Your task to perform on an android device: Go to Amazon Image 0: 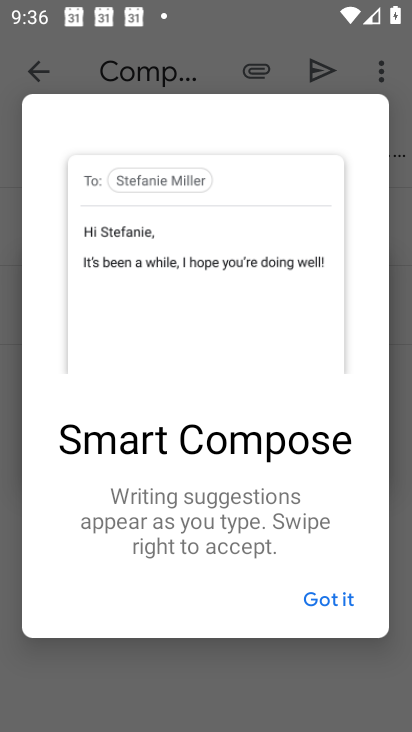
Step 0: press home button
Your task to perform on an android device: Go to Amazon Image 1: 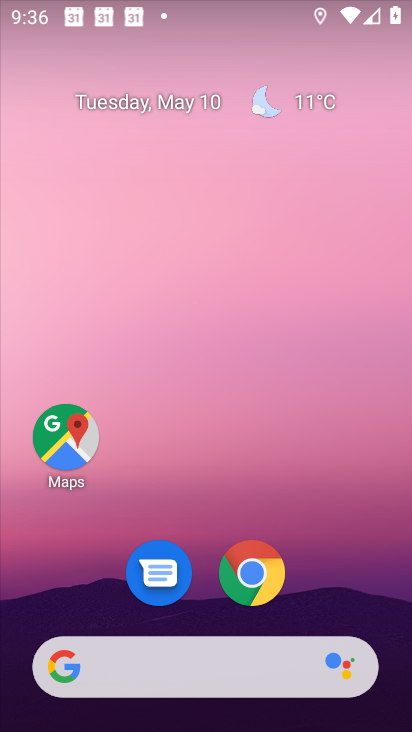
Step 1: click (260, 588)
Your task to perform on an android device: Go to Amazon Image 2: 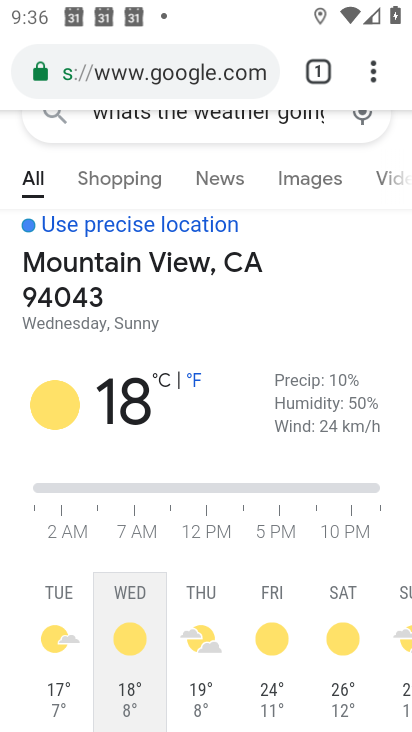
Step 2: click (210, 81)
Your task to perform on an android device: Go to Amazon Image 3: 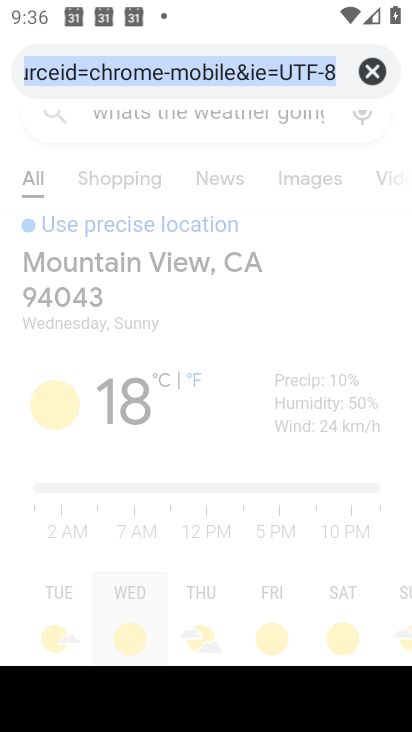
Step 3: type "Amazon"
Your task to perform on an android device: Go to Amazon Image 4: 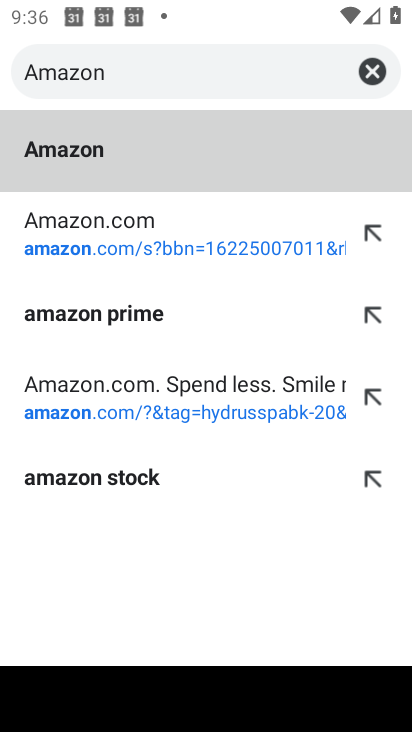
Step 4: click (74, 155)
Your task to perform on an android device: Go to Amazon Image 5: 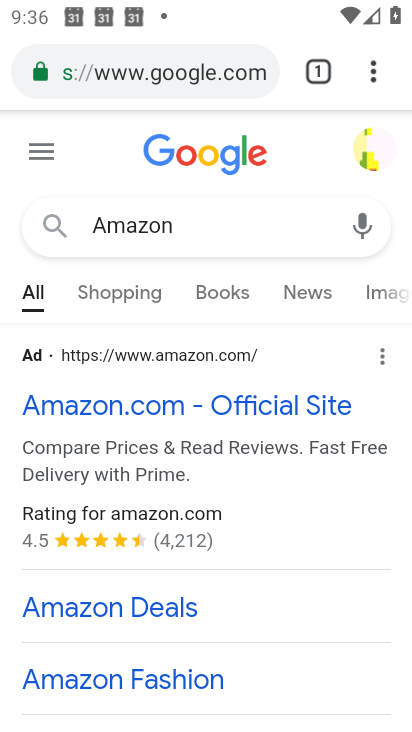
Step 5: click (139, 409)
Your task to perform on an android device: Go to Amazon Image 6: 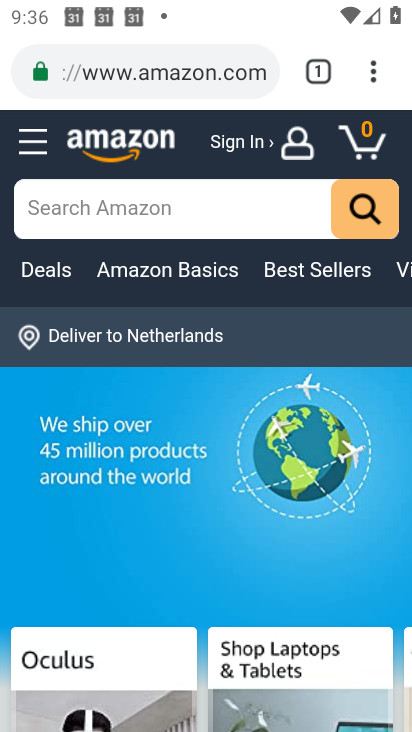
Step 6: task complete